Your task to perform on an android device: visit the assistant section in the google photos Image 0: 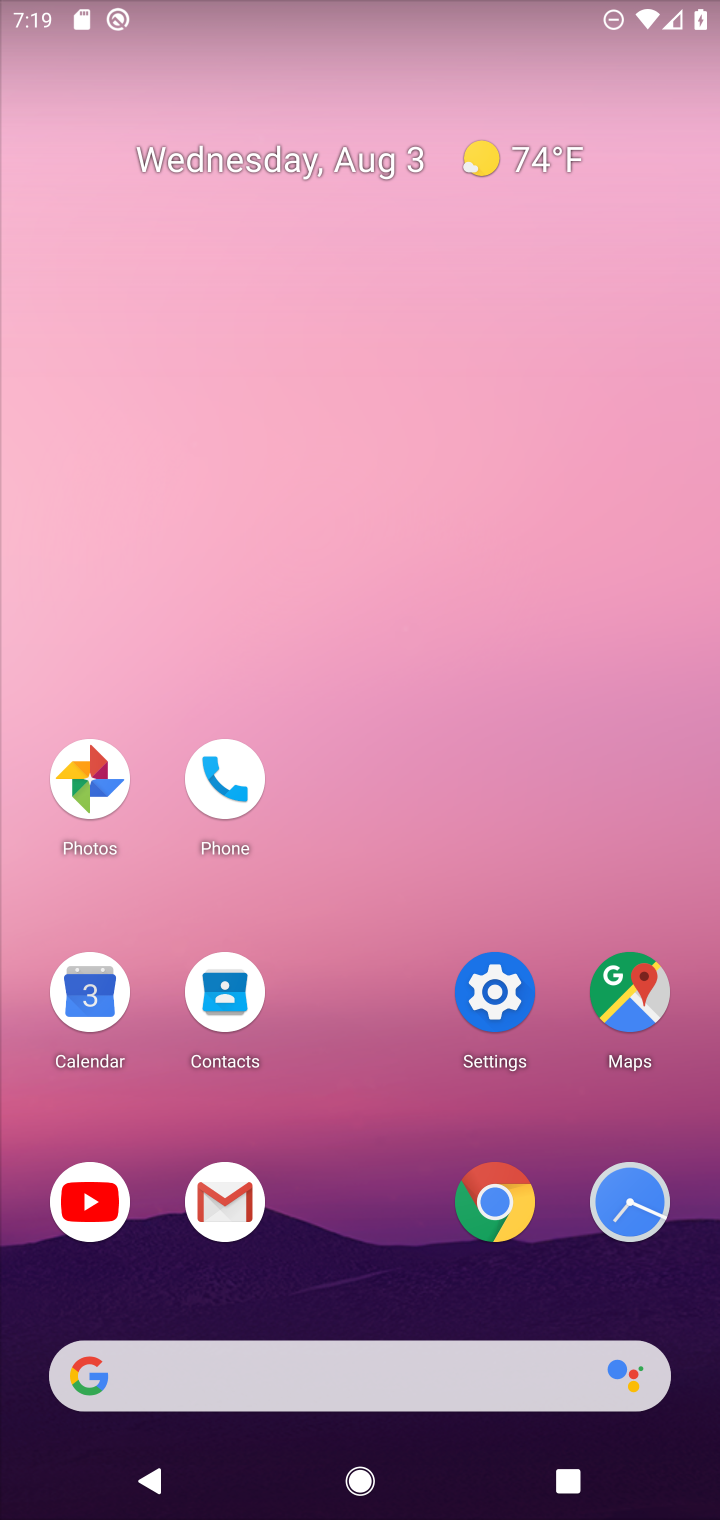
Step 0: click (88, 776)
Your task to perform on an android device: visit the assistant section in the google photos Image 1: 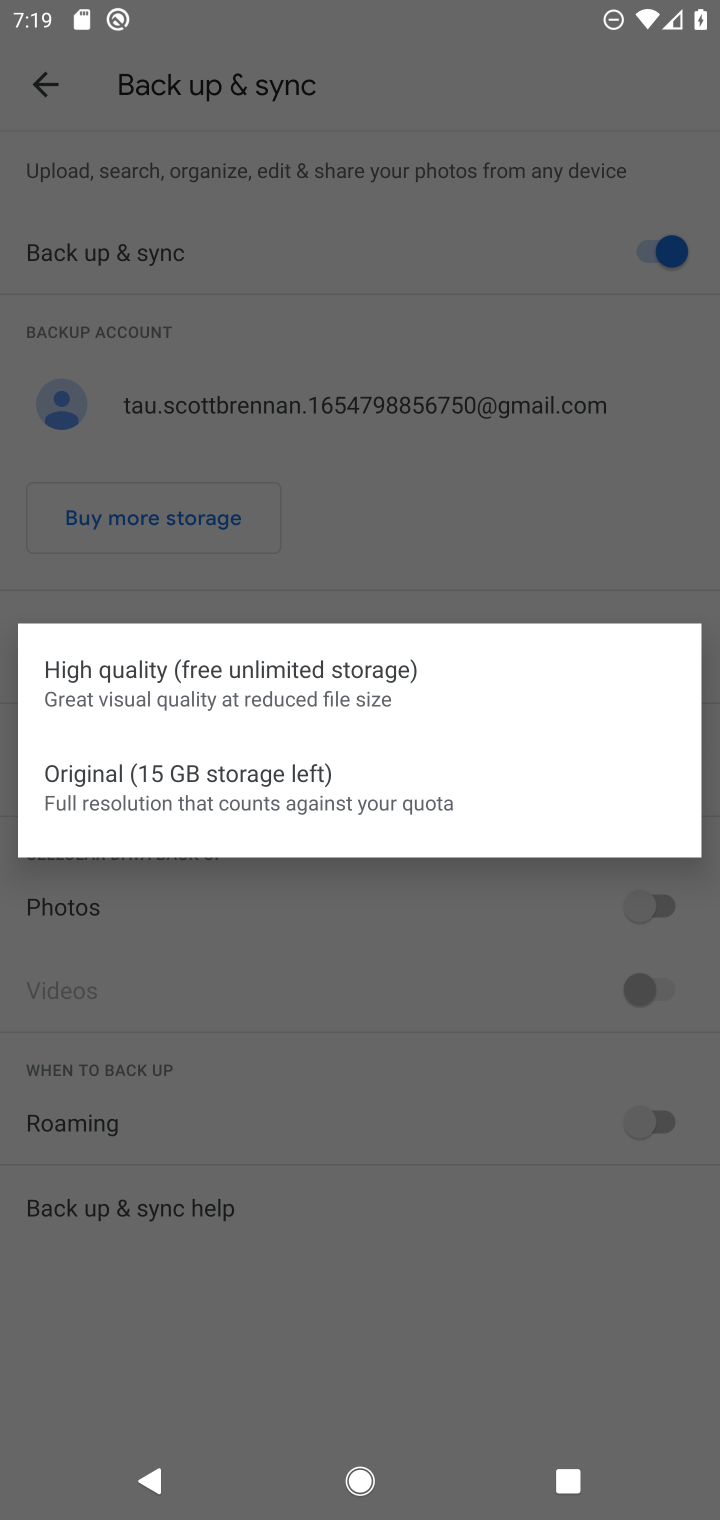
Step 1: click (55, 97)
Your task to perform on an android device: visit the assistant section in the google photos Image 2: 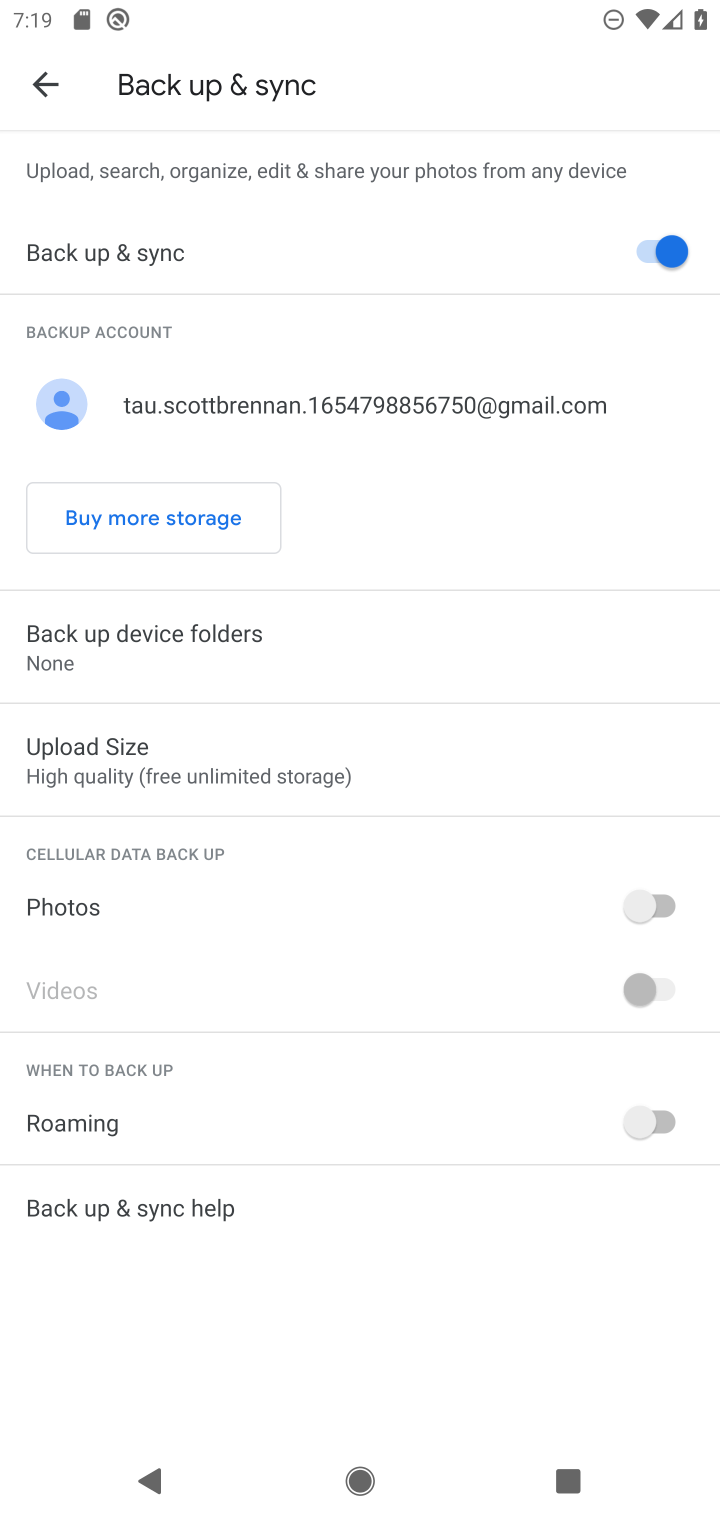
Step 2: click (45, 83)
Your task to perform on an android device: visit the assistant section in the google photos Image 3: 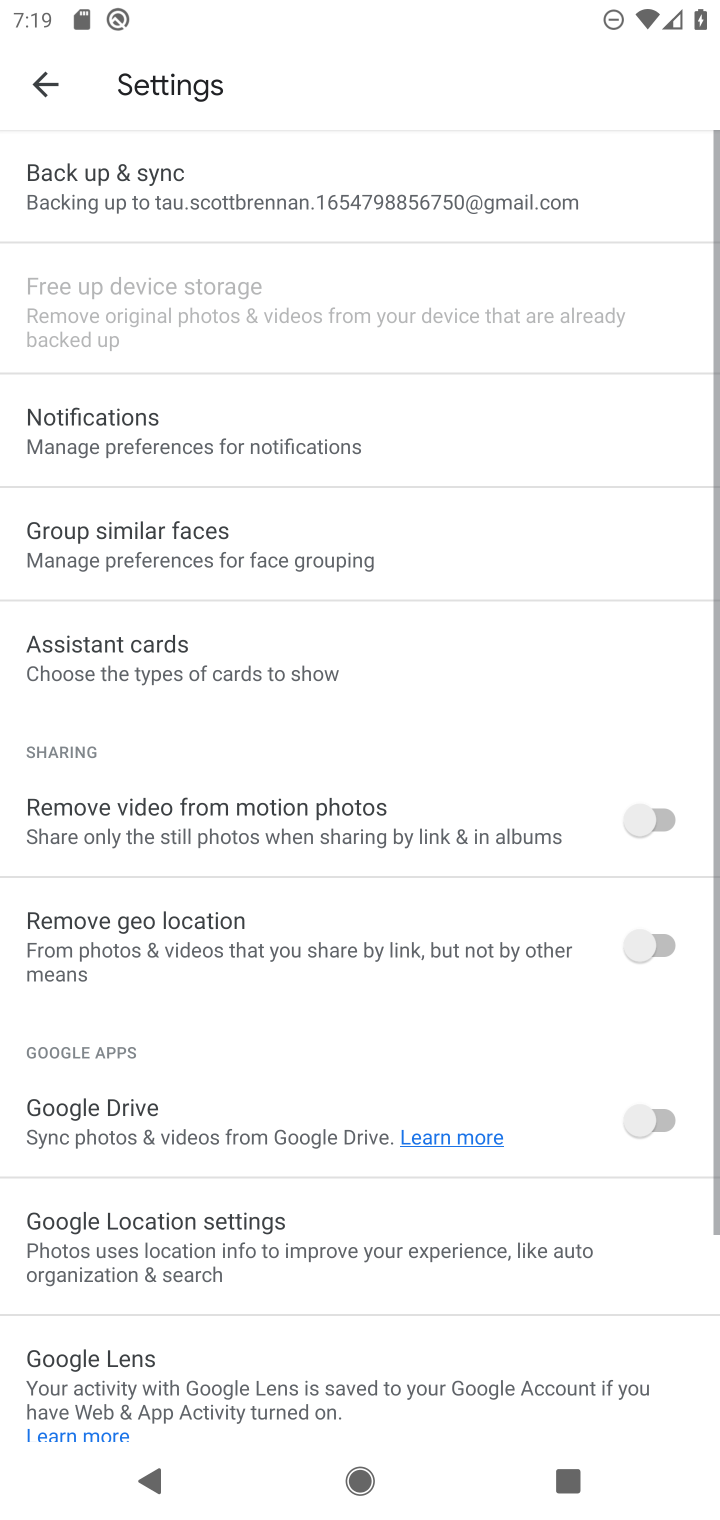
Step 3: click (45, 83)
Your task to perform on an android device: visit the assistant section in the google photos Image 4: 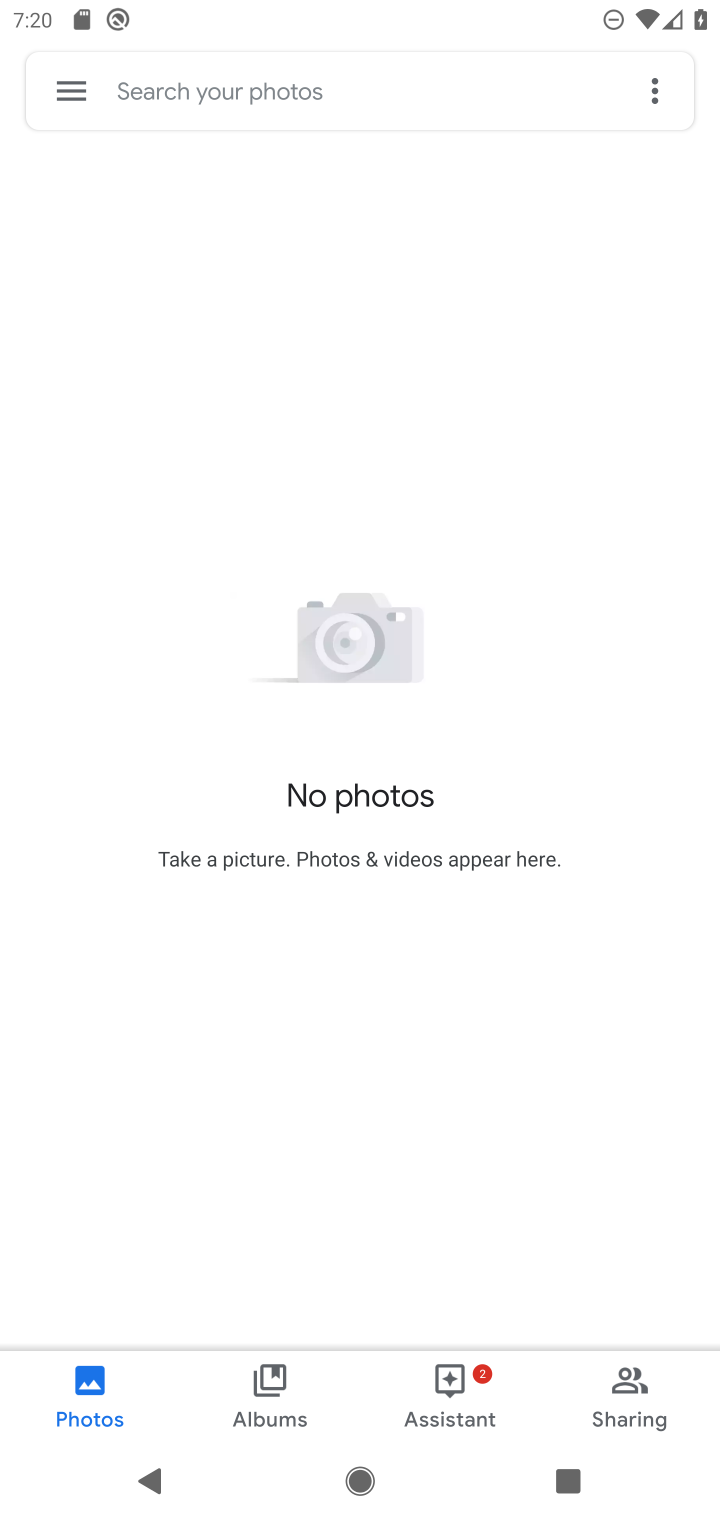
Step 4: click (442, 1382)
Your task to perform on an android device: visit the assistant section in the google photos Image 5: 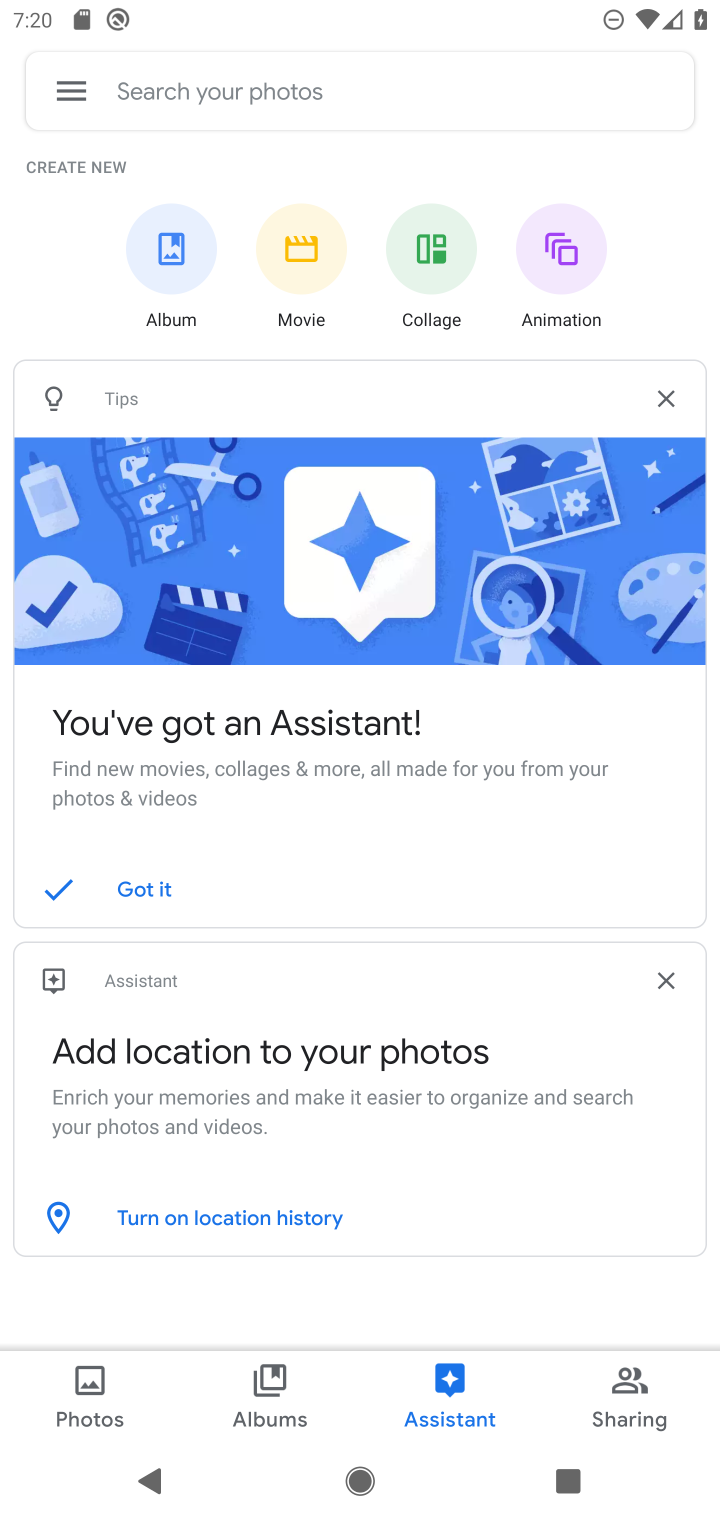
Step 5: task complete